Your task to perform on an android device: turn on the 12-hour format for clock Image 0: 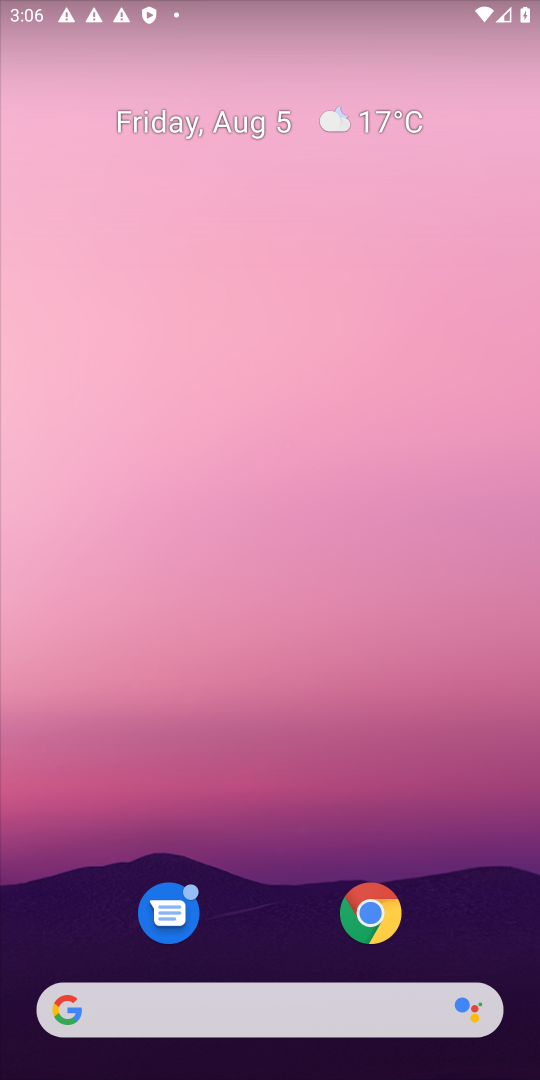
Step 0: drag from (294, 764) to (405, 157)
Your task to perform on an android device: turn on the 12-hour format for clock Image 1: 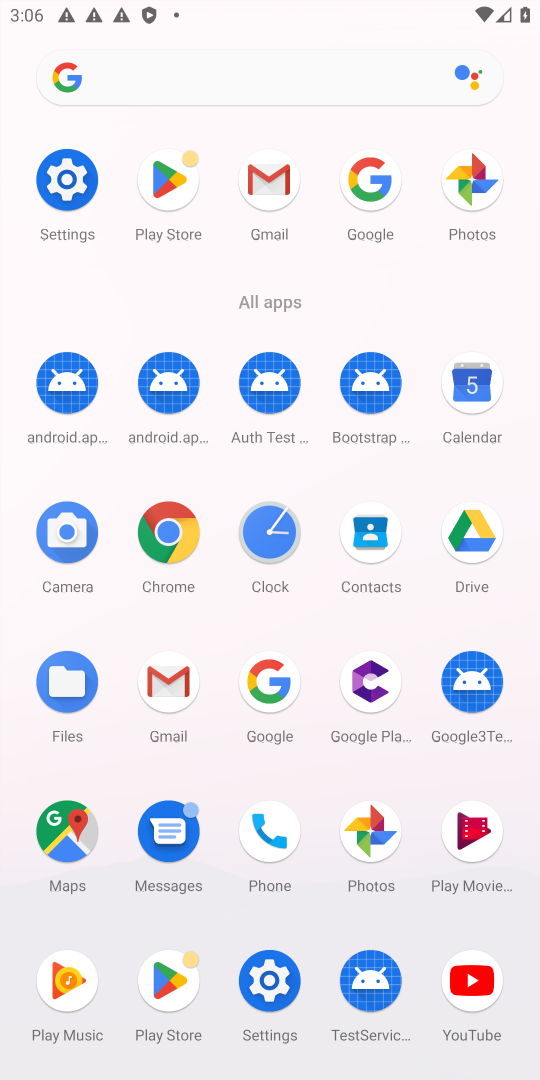
Step 1: click (278, 540)
Your task to perform on an android device: turn on the 12-hour format for clock Image 2: 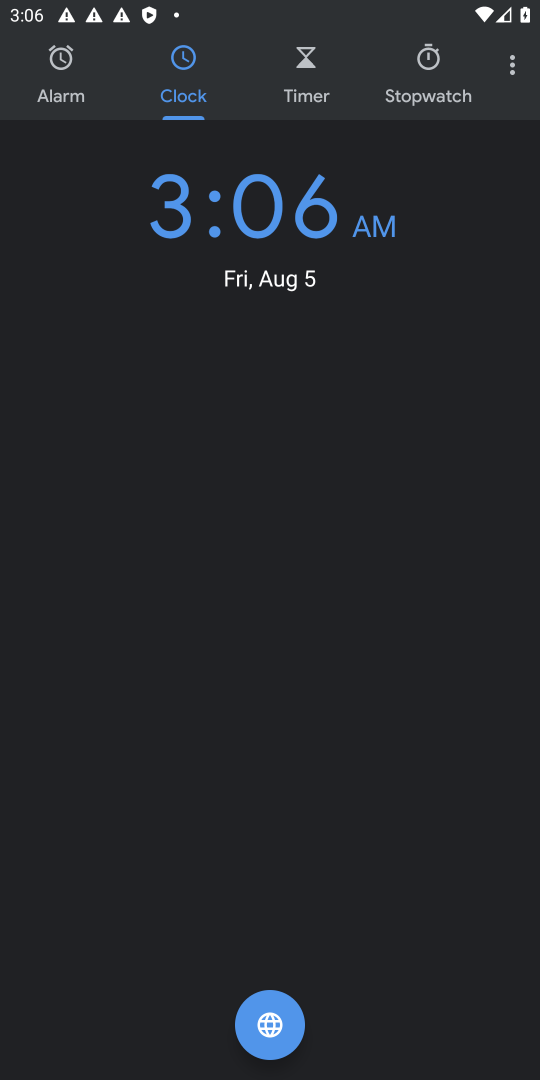
Step 2: click (518, 75)
Your task to perform on an android device: turn on the 12-hour format for clock Image 3: 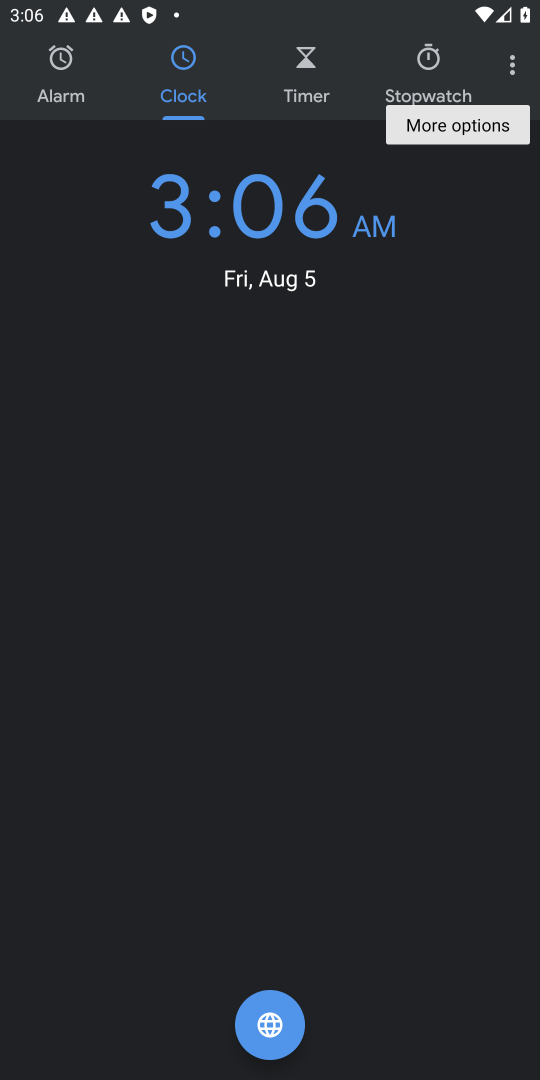
Step 3: click (504, 62)
Your task to perform on an android device: turn on the 12-hour format for clock Image 4: 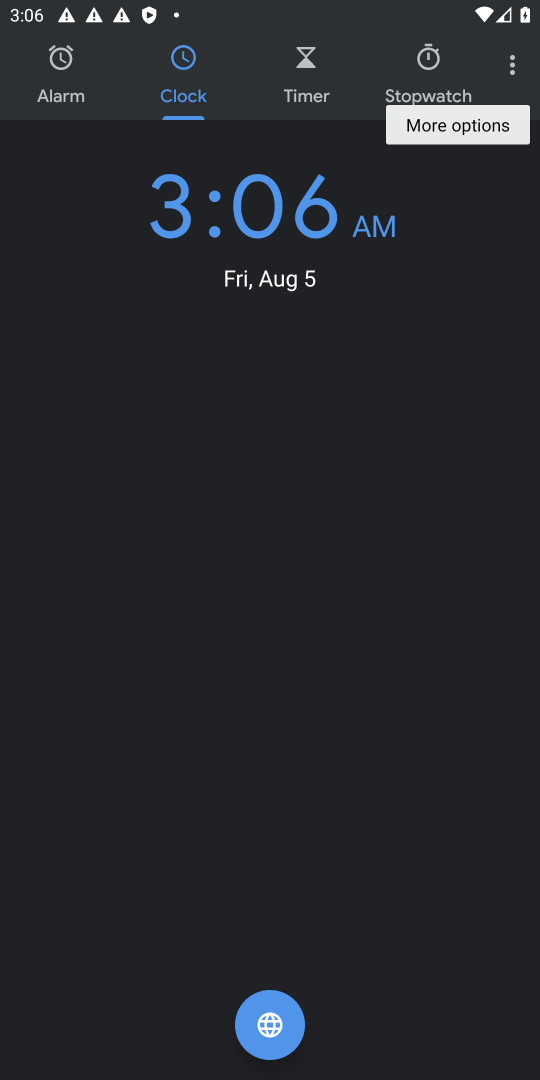
Step 4: click (509, 67)
Your task to perform on an android device: turn on the 12-hour format for clock Image 5: 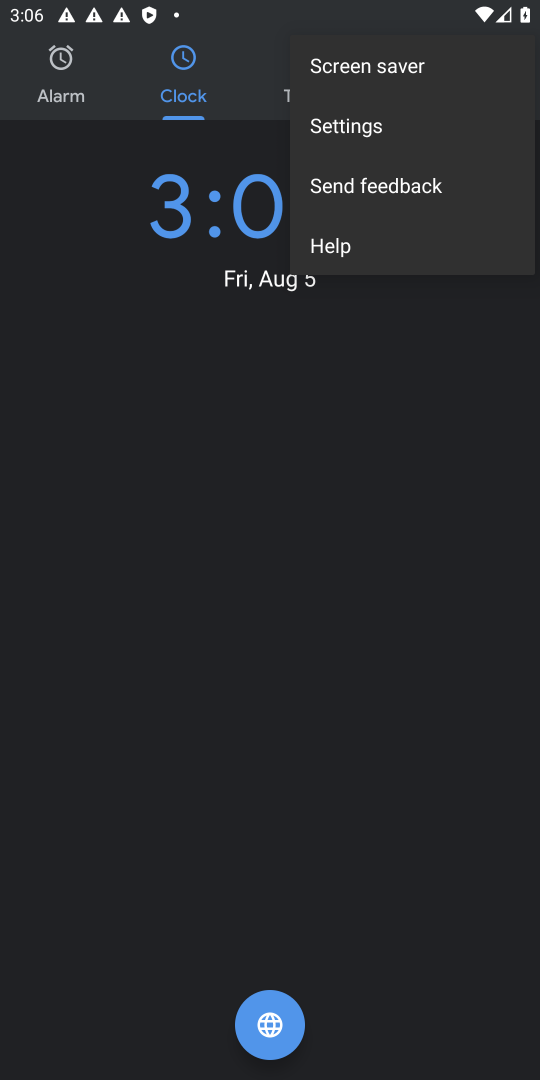
Step 5: click (365, 132)
Your task to perform on an android device: turn on the 12-hour format for clock Image 6: 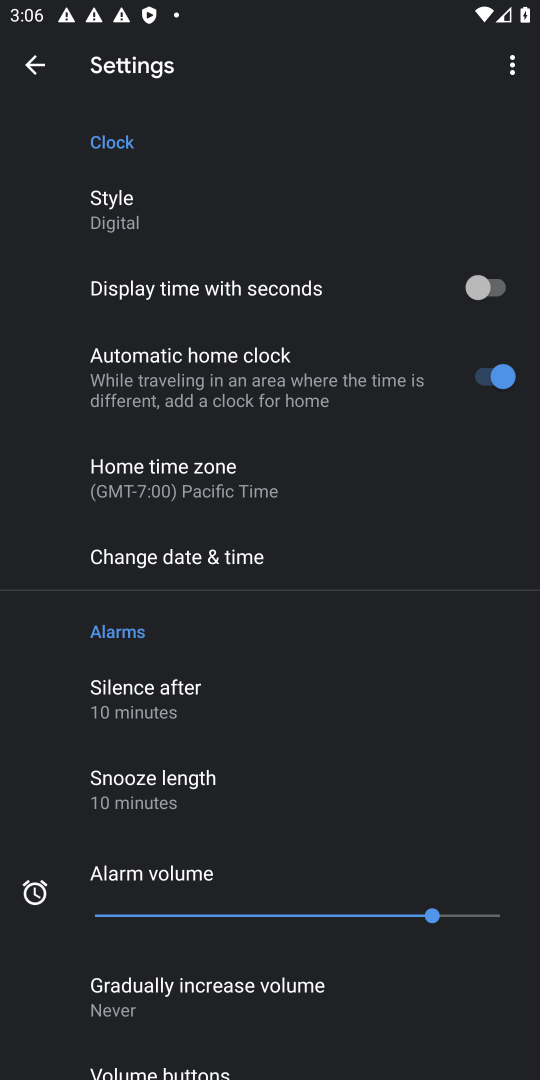
Step 6: click (199, 561)
Your task to perform on an android device: turn on the 12-hour format for clock Image 7: 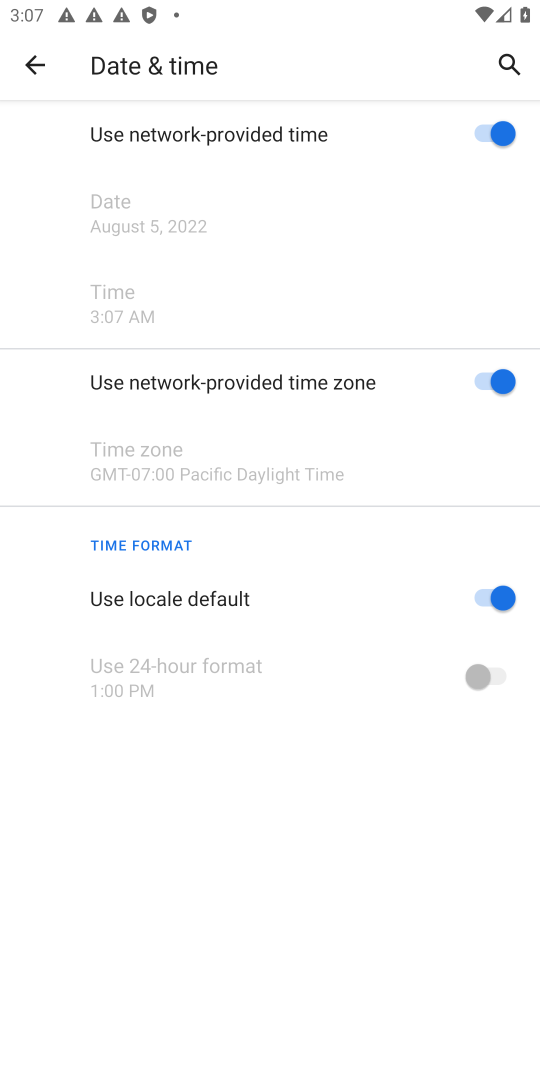
Step 7: task complete